Your task to perform on an android device: Open the stopwatch Image 0: 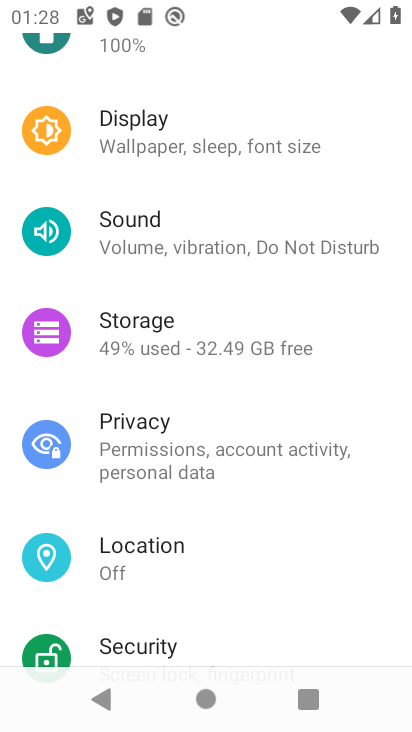
Step 0: press home button
Your task to perform on an android device: Open the stopwatch Image 1: 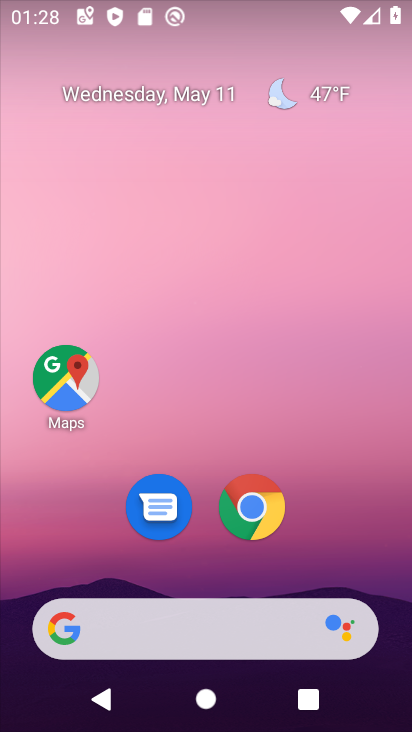
Step 1: drag from (331, 495) to (236, 43)
Your task to perform on an android device: Open the stopwatch Image 2: 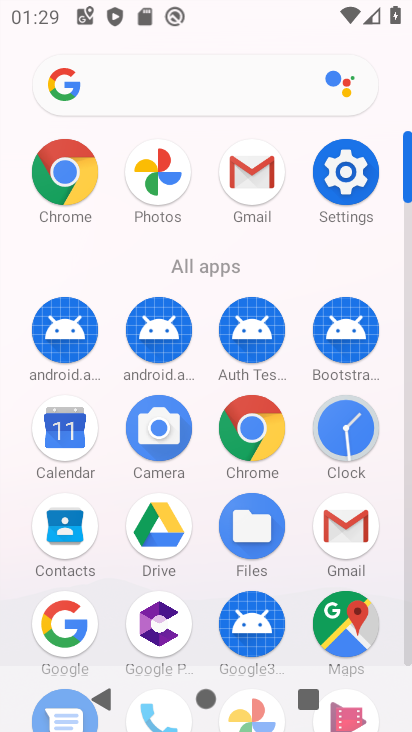
Step 2: click (346, 423)
Your task to perform on an android device: Open the stopwatch Image 3: 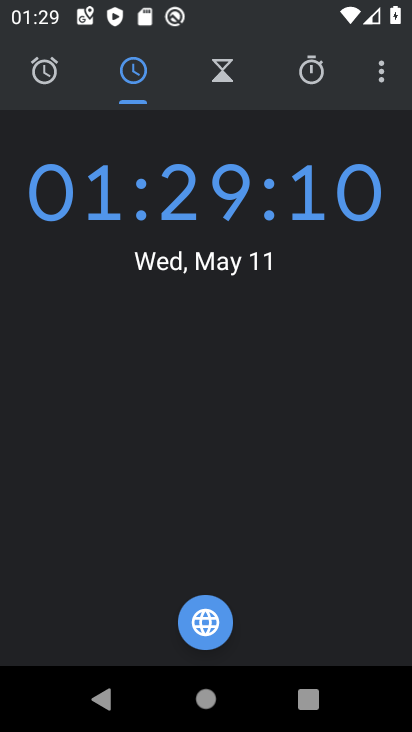
Step 3: click (310, 77)
Your task to perform on an android device: Open the stopwatch Image 4: 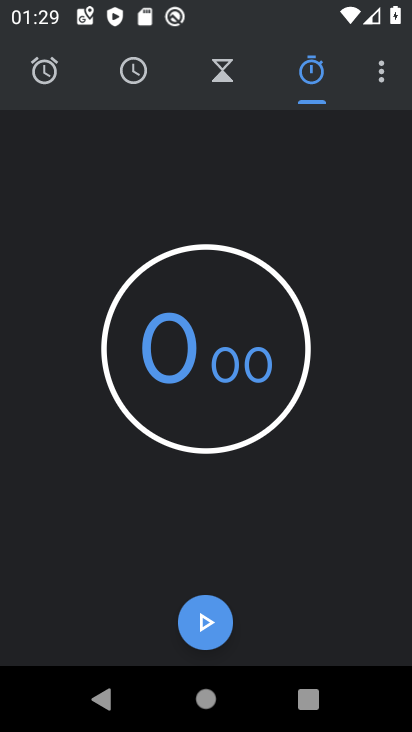
Step 4: task complete